Your task to perform on an android device: When is my next appointment? Image 0: 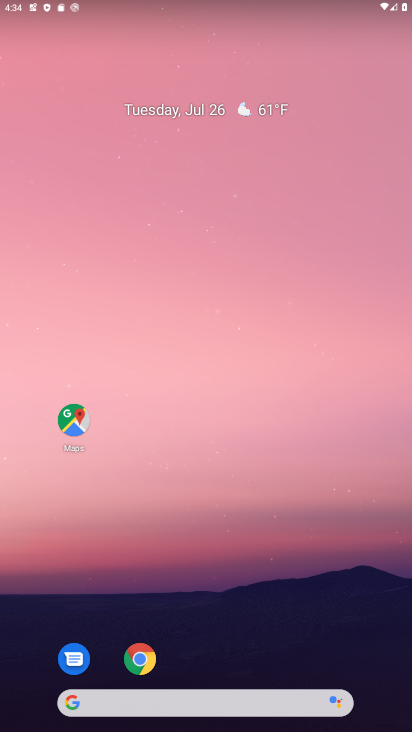
Step 0: drag from (194, 580) to (208, 273)
Your task to perform on an android device: When is my next appointment? Image 1: 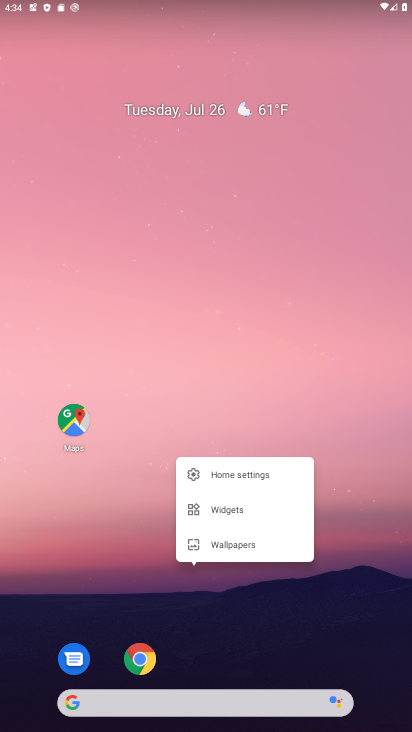
Step 1: click (341, 504)
Your task to perform on an android device: When is my next appointment? Image 2: 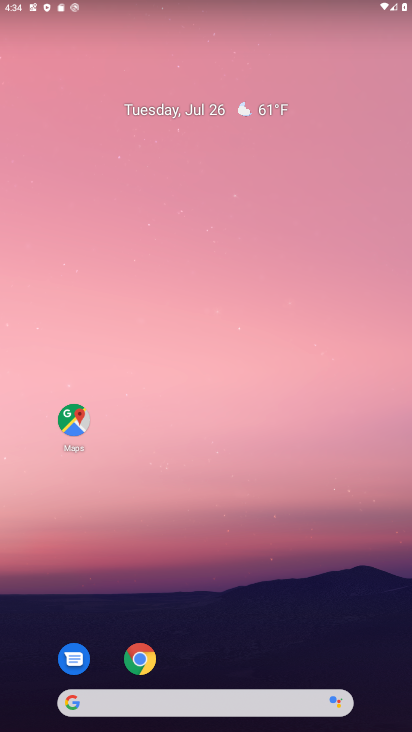
Step 2: drag from (341, 504) to (306, 139)
Your task to perform on an android device: When is my next appointment? Image 3: 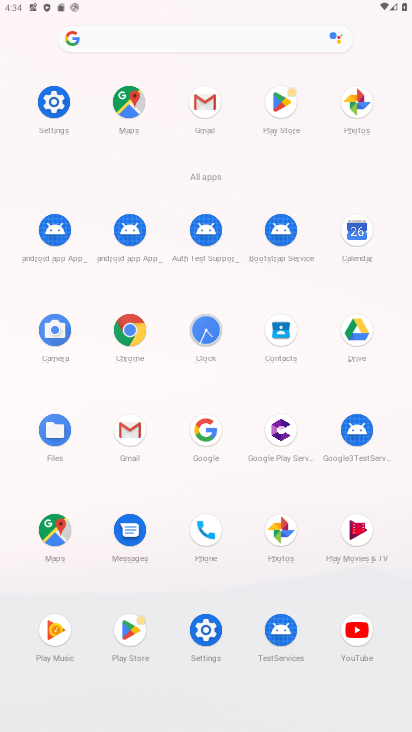
Step 3: click (361, 232)
Your task to perform on an android device: When is my next appointment? Image 4: 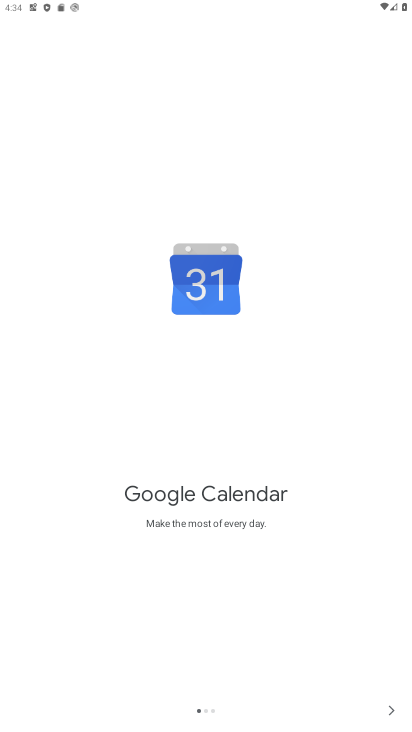
Step 4: click (389, 706)
Your task to perform on an android device: When is my next appointment? Image 5: 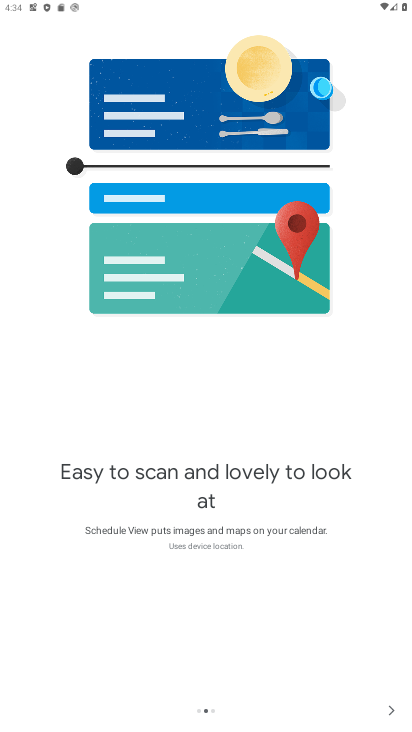
Step 5: click (389, 706)
Your task to perform on an android device: When is my next appointment? Image 6: 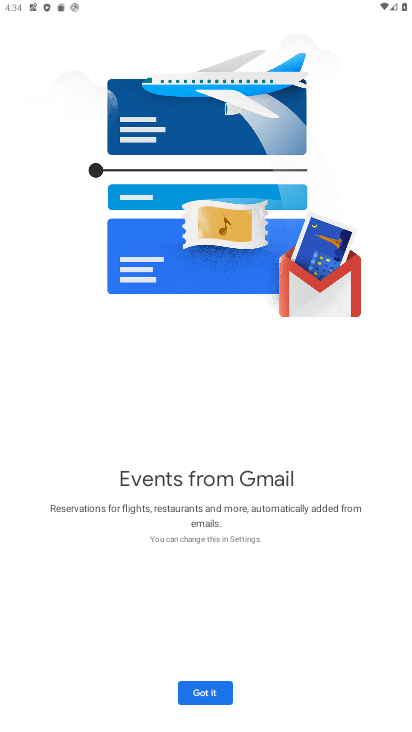
Step 6: click (389, 706)
Your task to perform on an android device: When is my next appointment? Image 7: 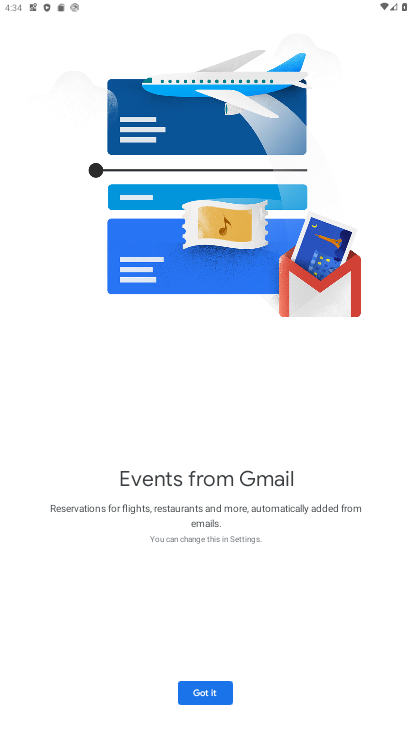
Step 7: click (220, 687)
Your task to perform on an android device: When is my next appointment? Image 8: 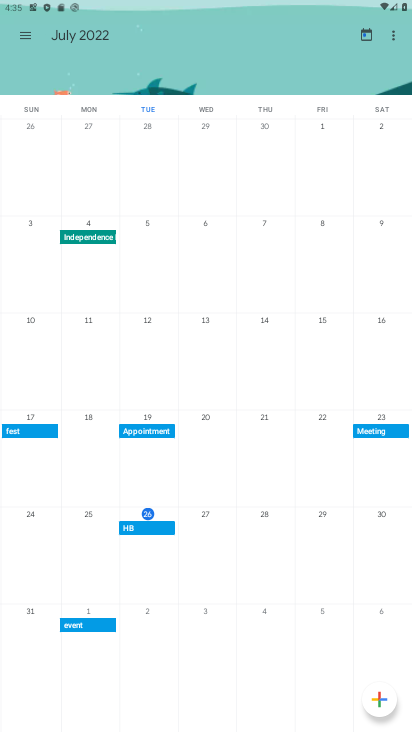
Step 8: task complete